Your task to perform on an android device: check android version Image 0: 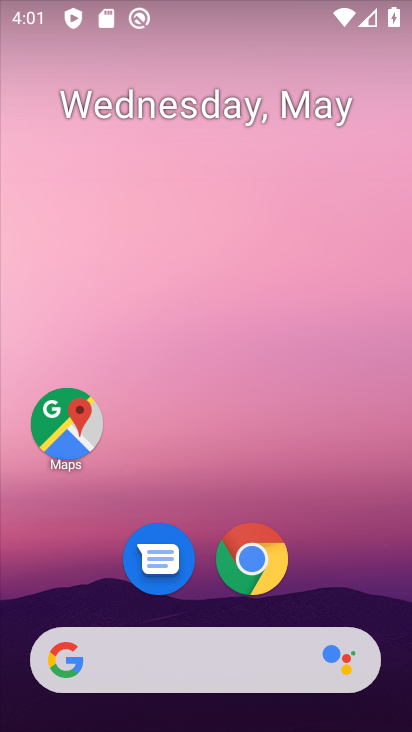
Step 0: drag from (357, 576) to (250, 50)
Your task to perform on an android device: check android version Image 1: 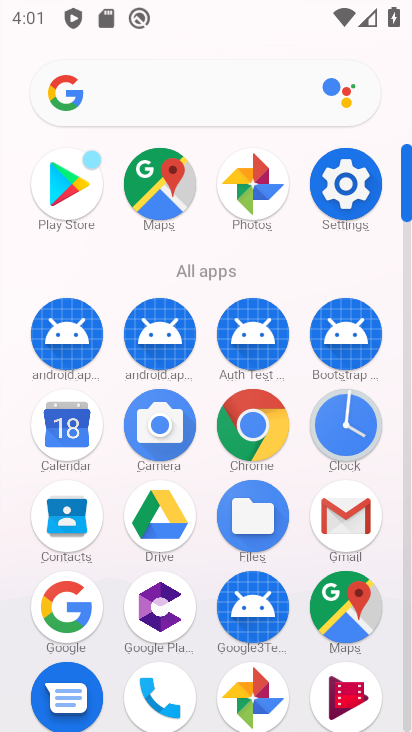
Step 1: click (347, 203)
Your task to perform on an android device: check android version Image 2: 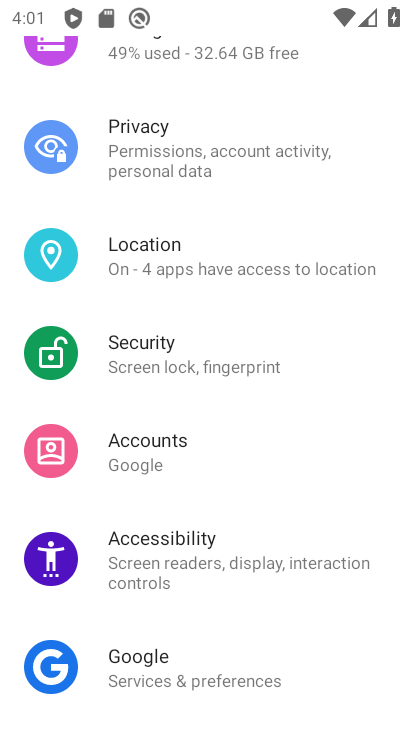
Step 2: drag from (263, 124) to (204, 664)
Your task to perform on an android device: check android version Image 3: 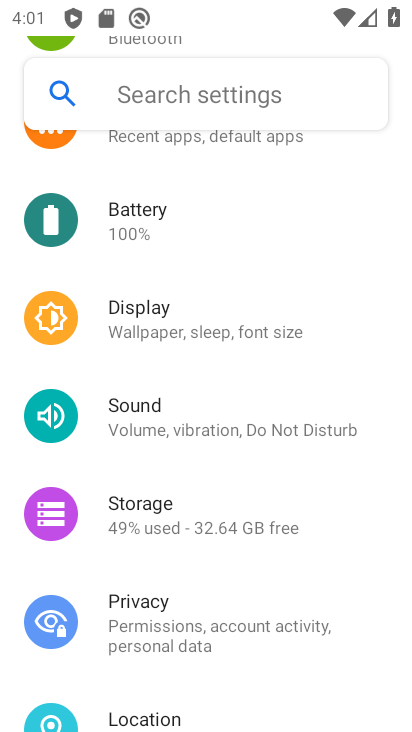
Step 3: drag from (244, 527) to (227, 73)
Your task to perform on an android device: check android version Image 4: 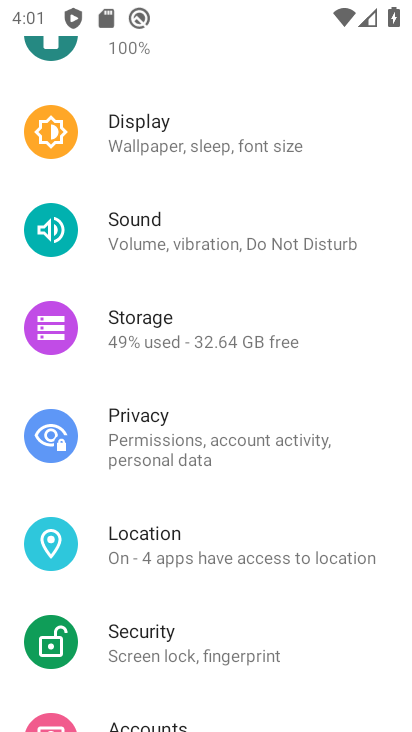
Step 4: drag from (231, 597) to (220, 124)
Your task to perform on an android device: check android version Image 5: 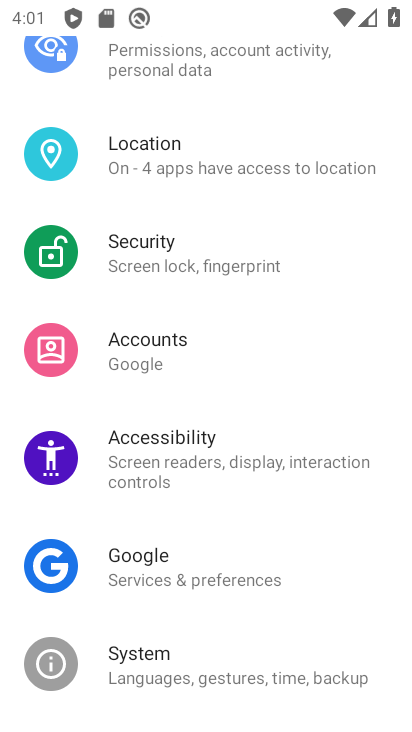
Step 5: drag from (242, 566) to (210, 287)
Your task to perform on an android device: check android version Image 6: 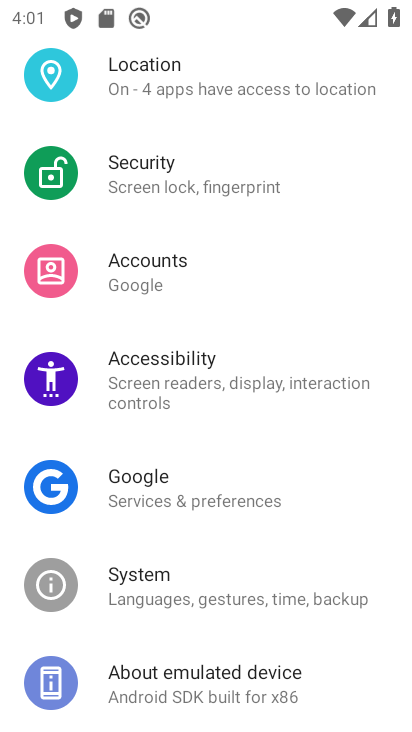
Step 6: click (201, 693)
Your task to perform on an android device: check android version Image 7: 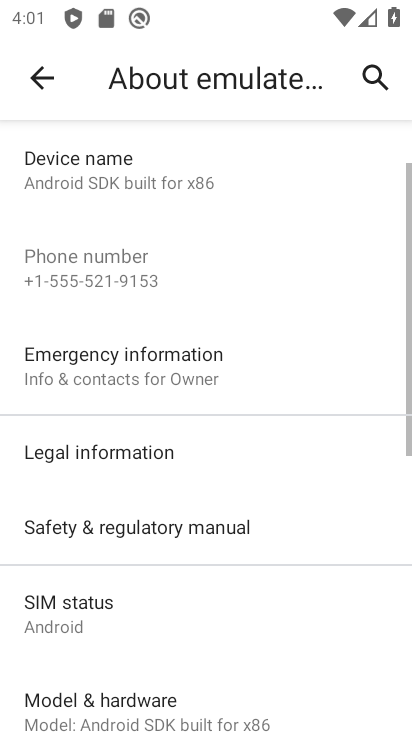
Step 7: drag from (197, 664) to (144, 282)
Your task to perform on an android device: check android version Image 8: 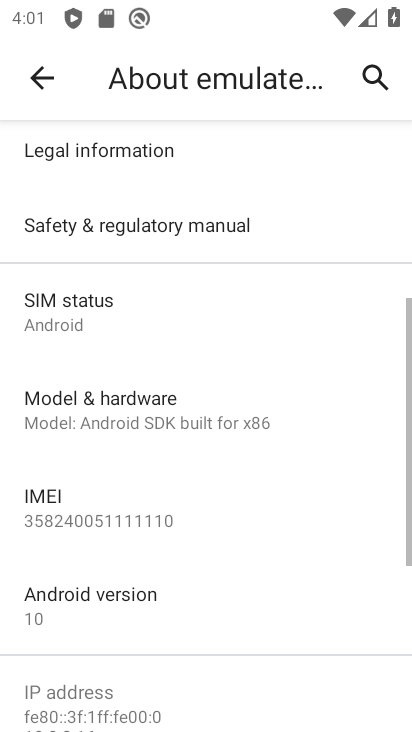
Step 8: click (158, 606)
Your task to perform on an android device: check android version Image 9: 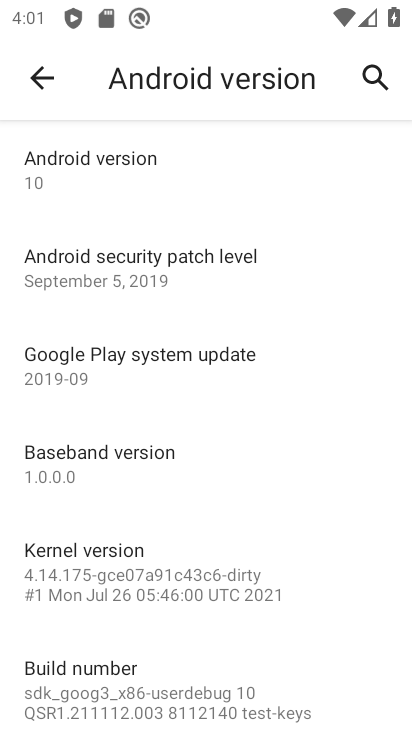
Step 9: task complete